Your task to perform on an android device: change notification settings in the gmail app Image 0: 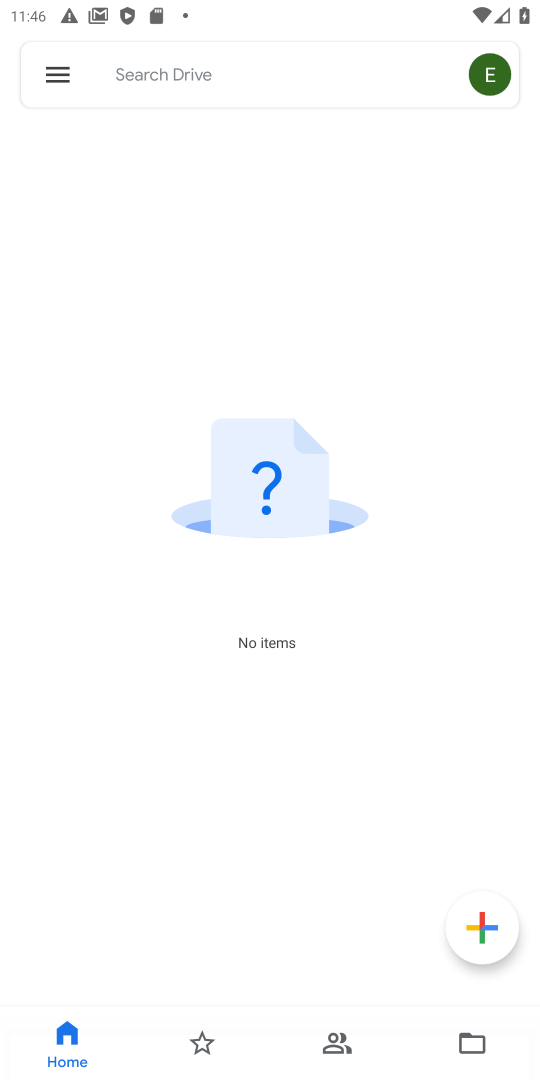
Step 0: press home button
Your task to perform on an android device: change notification settings in the gmail app Image 1: 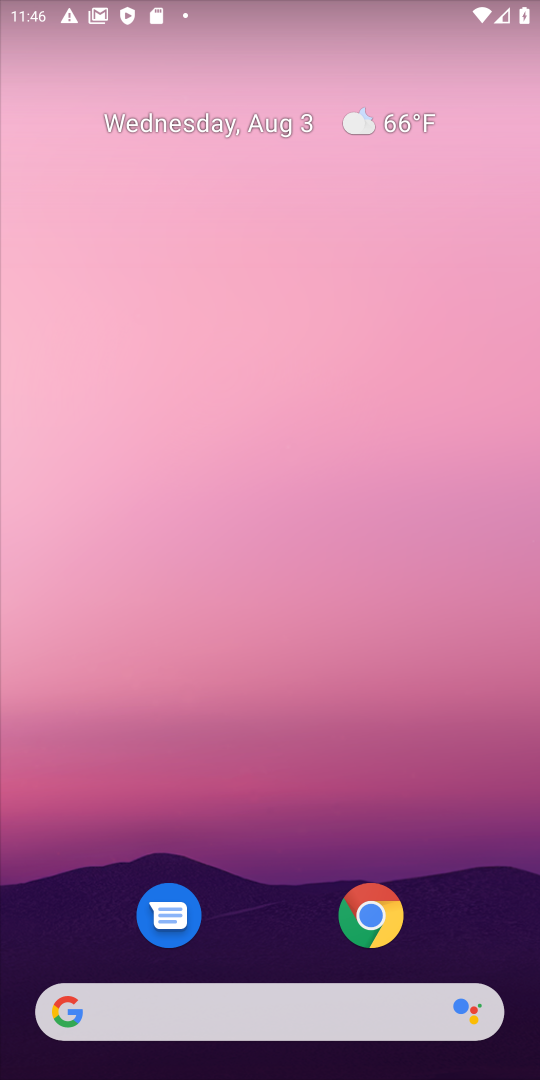
Step 1: drag from (258, 749) to (277, 151)
Your task to perform on an android device: change notification settings in the gmail app Image 2: 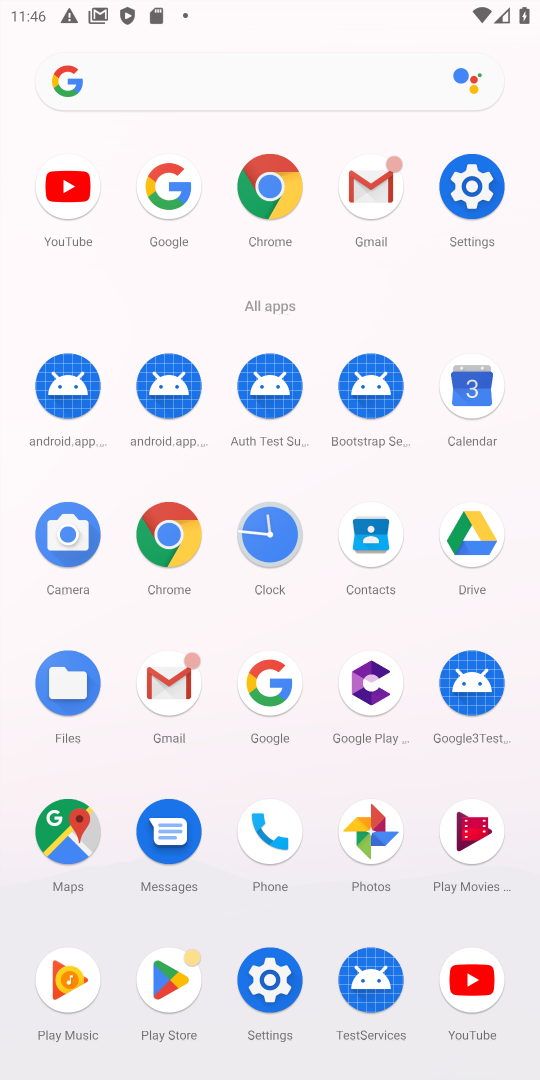
Step 2: click (358, 217)
Your task to perform on an android device: change notification settings in the gmail app Image 3: 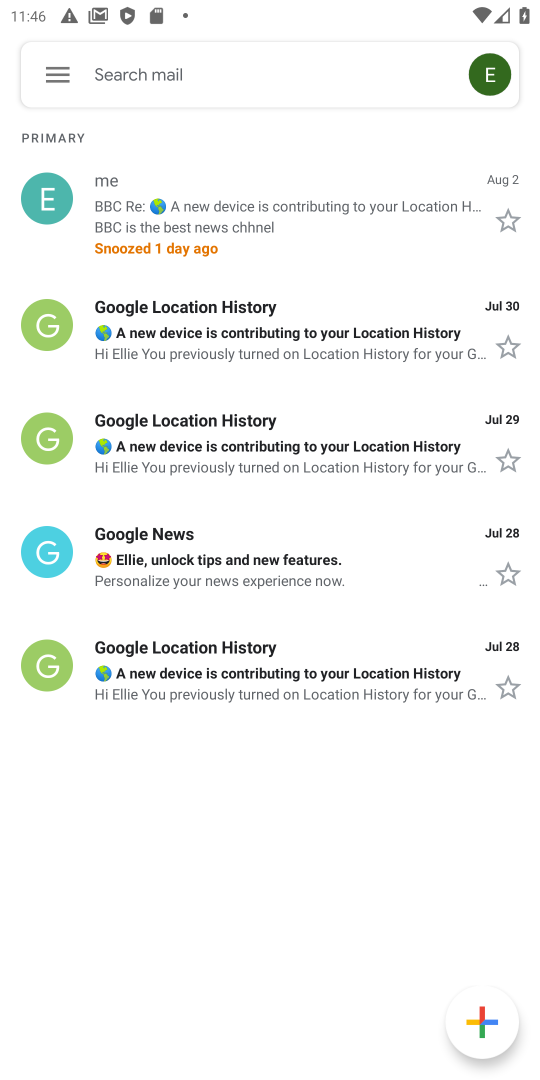
Step 3: click (64, 71)
Your task to perform on an android device: change notification settings in the gmail app Image 4: 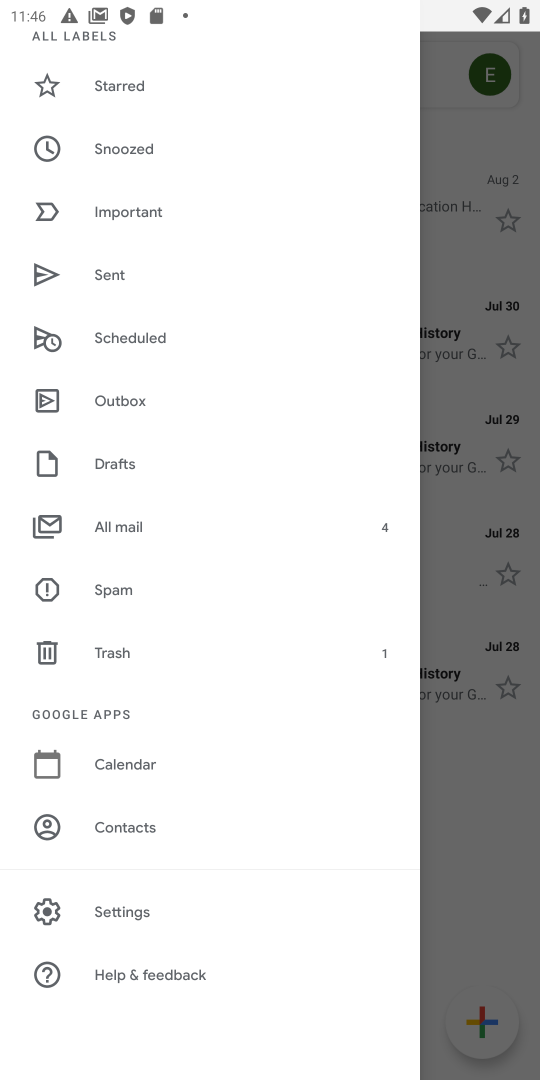
Step 4: click (124, 906)
Your task to perform on an android device: change notification settings in the gmail app Image 5: 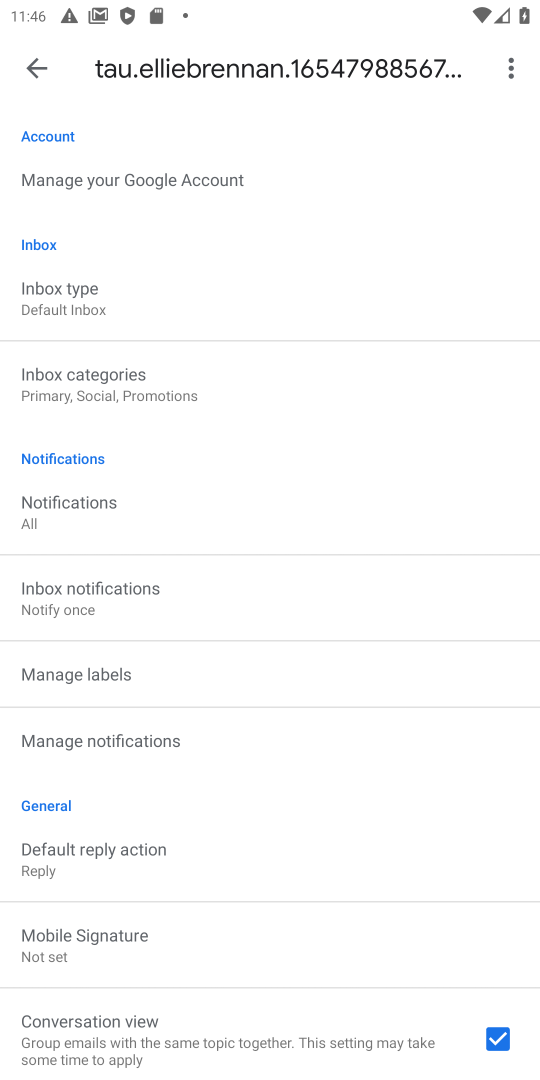
Step 5: click (82, 507)
Your task to perform on an android device: change notification settings in the gmail app Image 6: 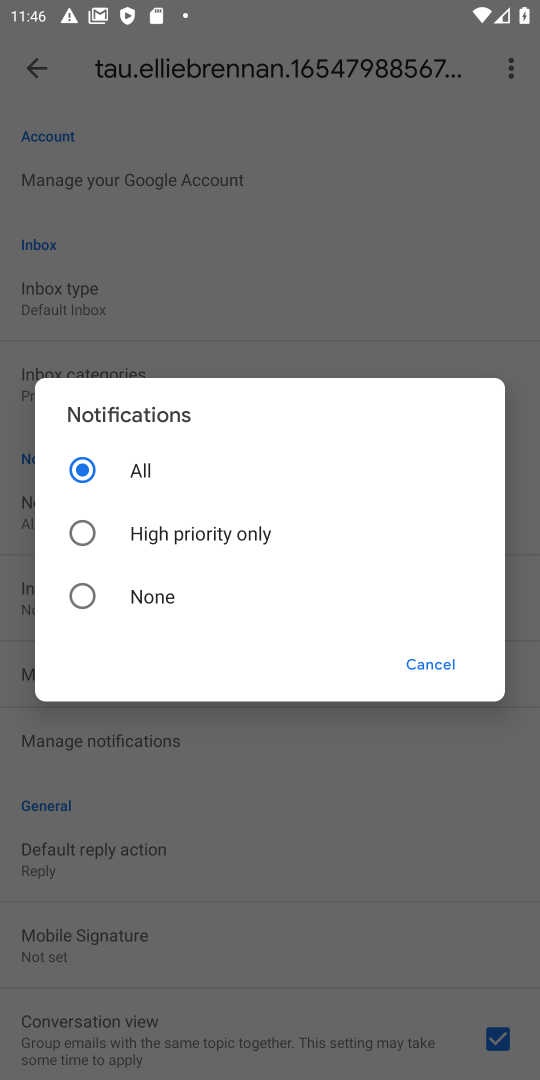
Step 6: click (92, 602)
Your task to perform on an android device: change notification settings in the gmail app Image 7: 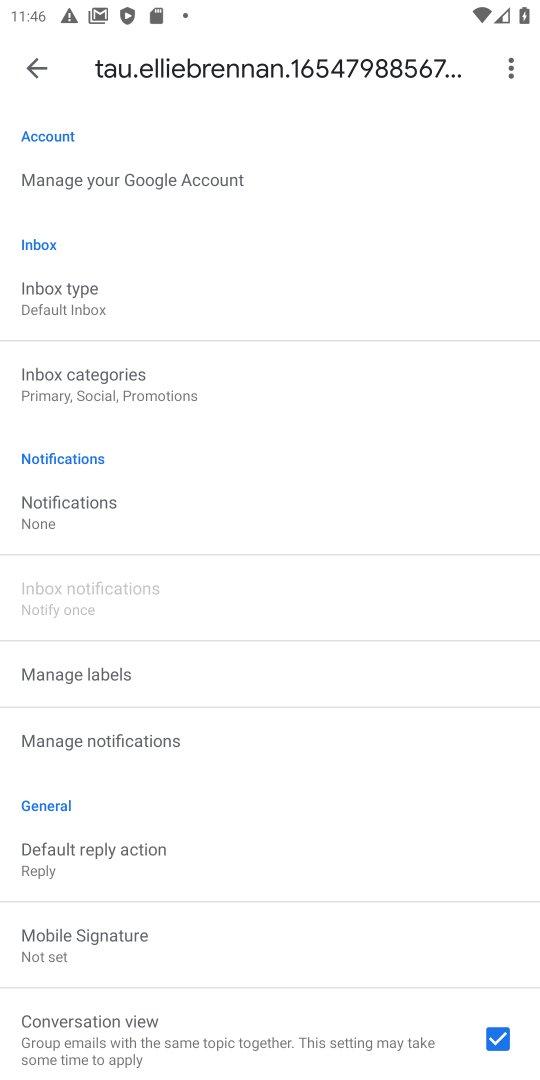
Step 7: task complete